Your task to perform on an android device: Open Amazon Image 0: 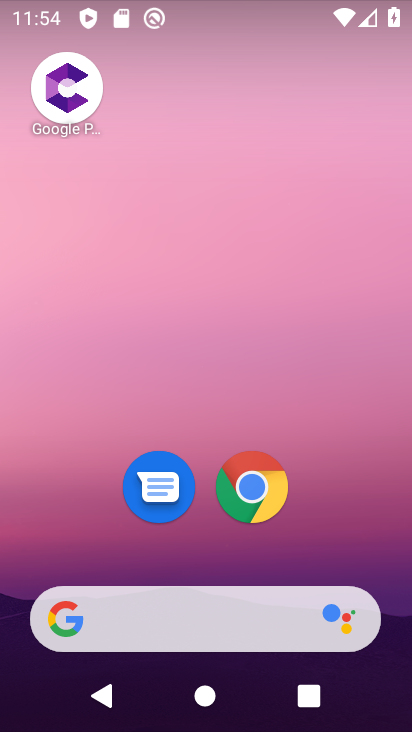
Step 0: click (253, 486)
Your task to perform on an android device: Open Amazon Image 1: 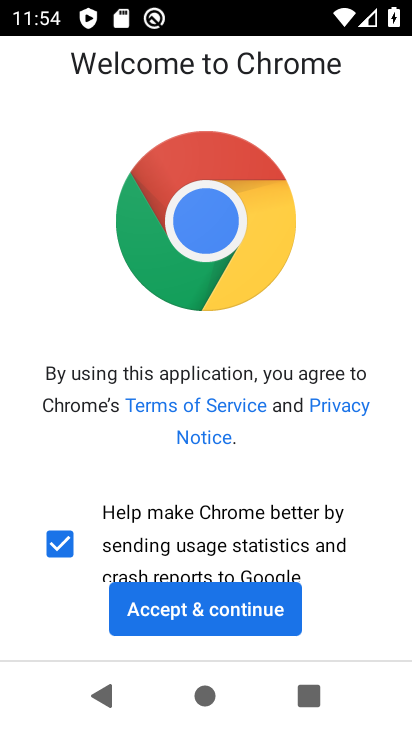
Step 1: click (196, 612)
Your task to perform on an android device: Open Amazon Image 2: 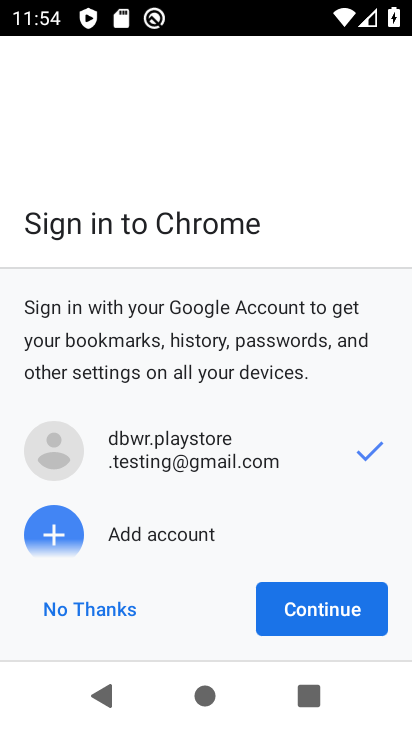
Step 2: click (324, 610)
Your task to perform on an android device: Open Amazon Image 3: 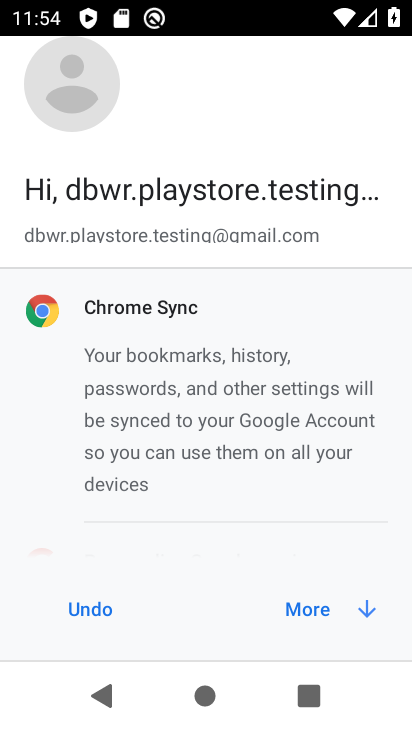
Step 3: click (314, 604)
Your task to perform on an android device: Open Amazon Image 4: 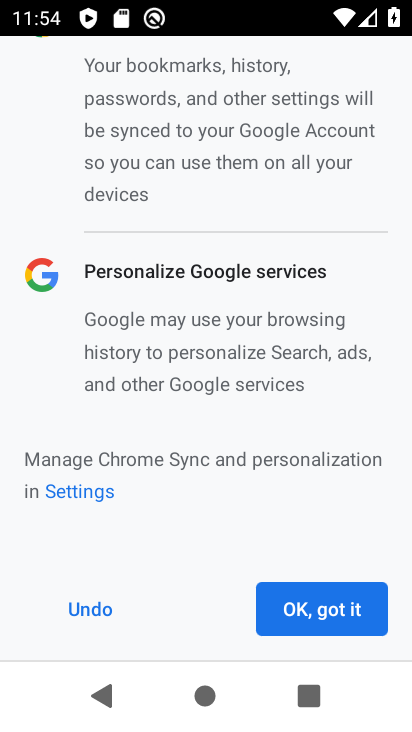
Step 4: click (314, 604)
Your task to perform on an android device: Open Amazon Image 5: 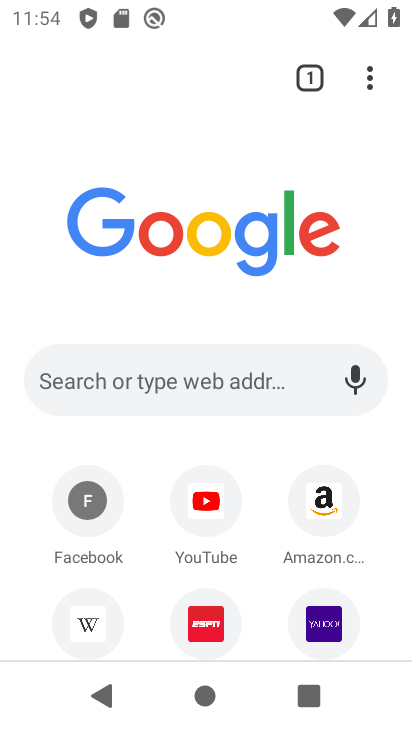
Step 5: click (318, 494)
Your task to perform on an android device: Open Amazon Image 6: 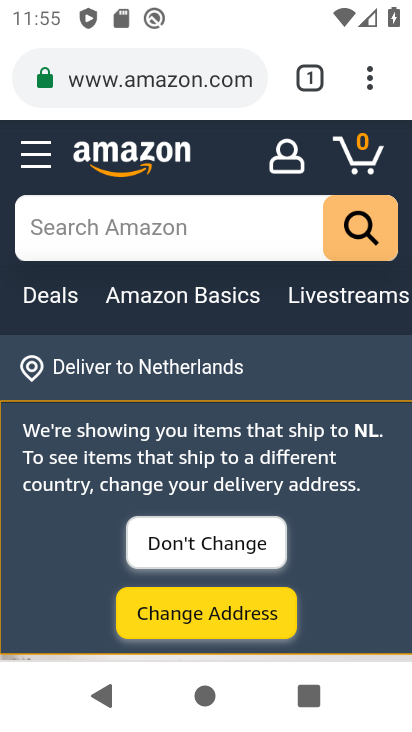
Step 6: task complete